Your task to perform on an android device: Go to display settings Image 0: 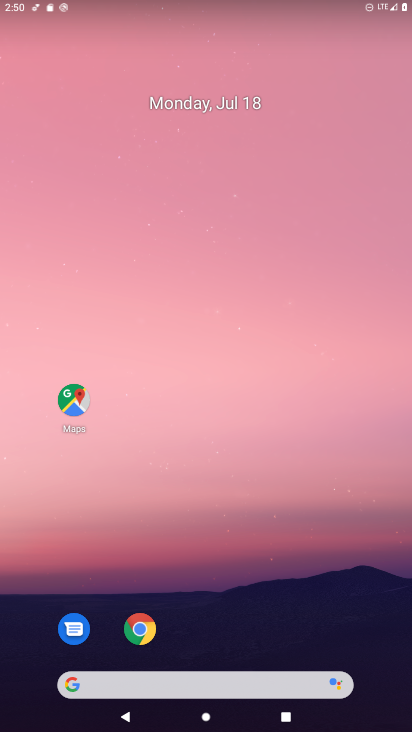
Step 0: drag from (198, 657) to (176, 253)
Your task to perform on an android device: Go to display settings Image 1: 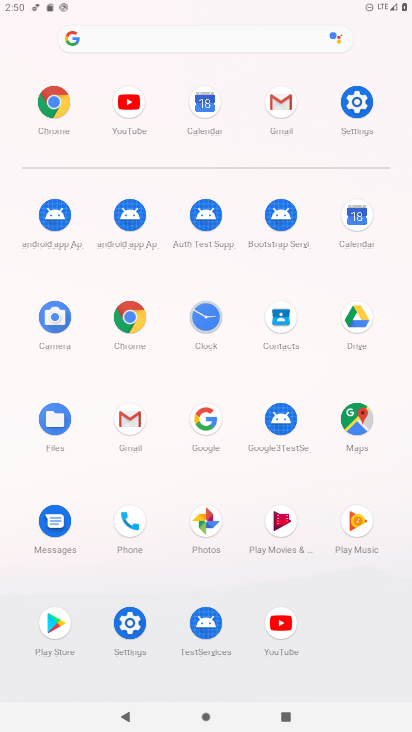
Step 1: click (361, 108)
Your task to perform on an android device: Go to display settings Image 2: 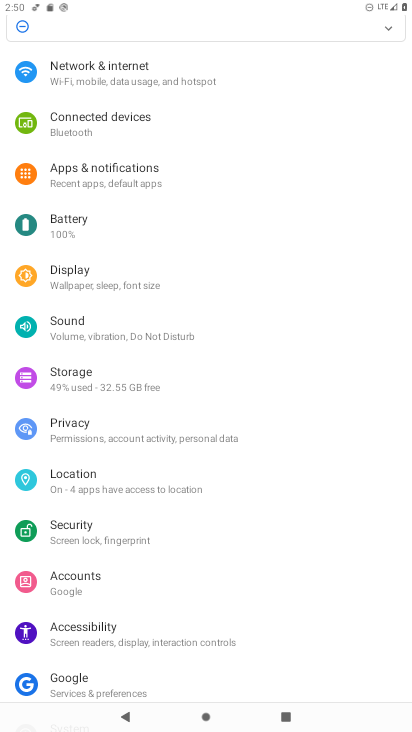
Step 2: click (73, 280)
Your task to perform on an android device: Go to display settings Image 3: 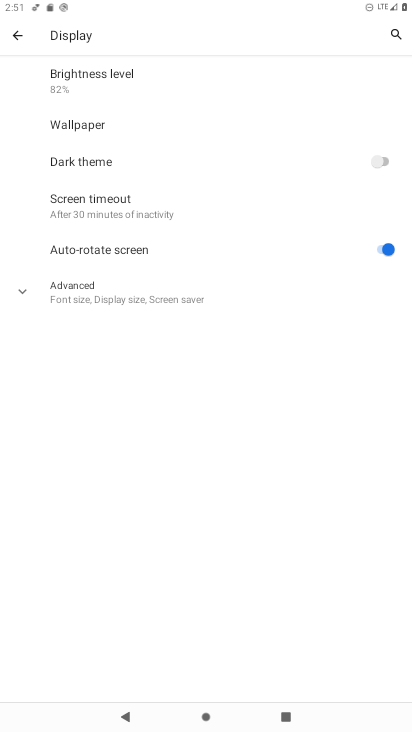
Step 3: click (76, 280)
Your task to perform on an android device: Go to display settings Image 4: 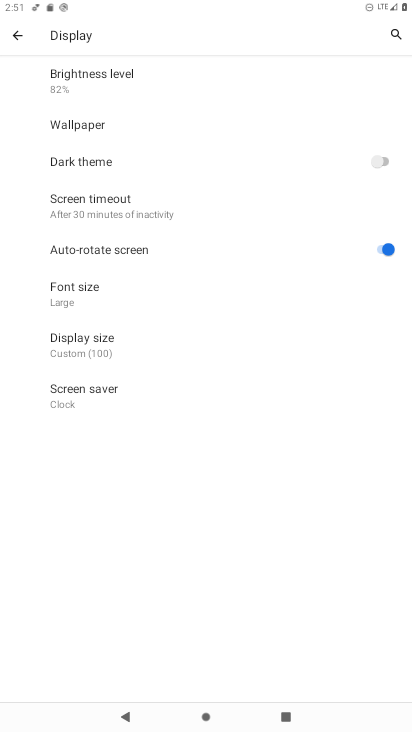
Step 4: task complete